Your task to perform on an android device: Add "macbook pro 15 inch" to the cart on amazon Image 0: 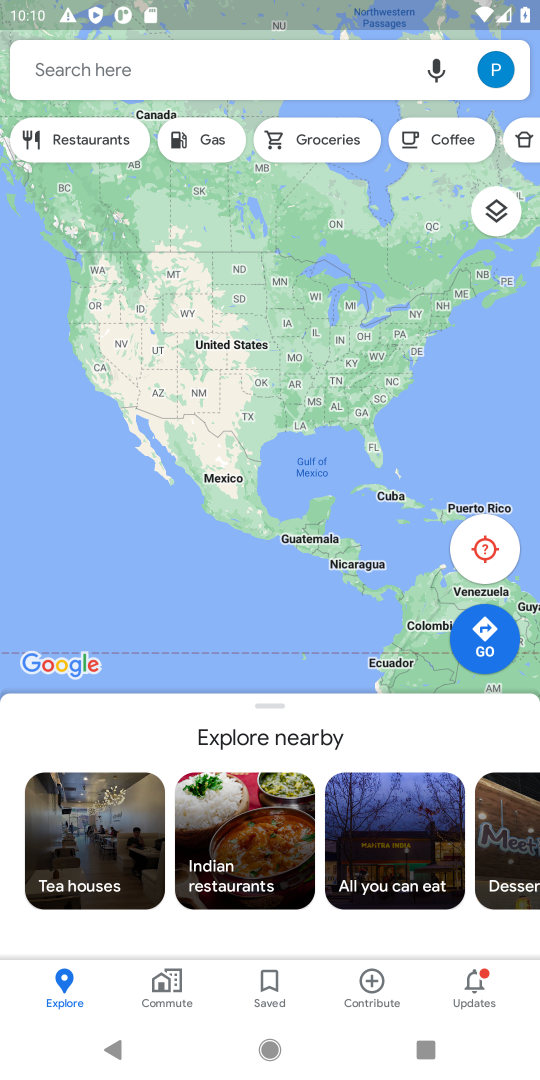
Step 0: task complete